Your task to perform on an android device: Open Chrome and go to settings Image 0: 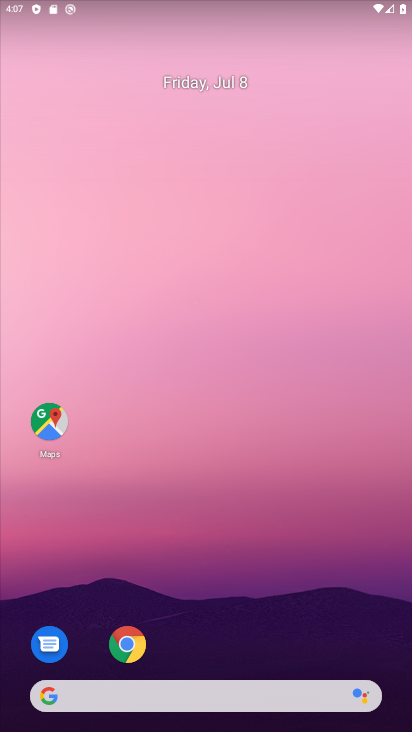
Step 0: click (135, 648)
Your task to perform on an android device: Open Chrome and go to settings Image 1: 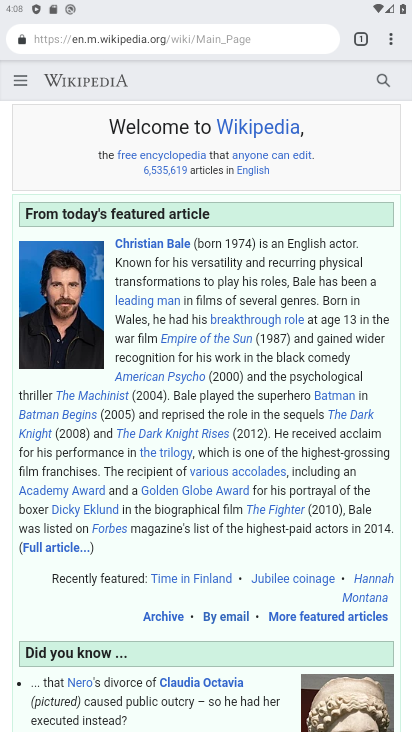
Step 1: click (382, 40)
Your task to perform on an android device: Open Chrome and go to settings Image 2: 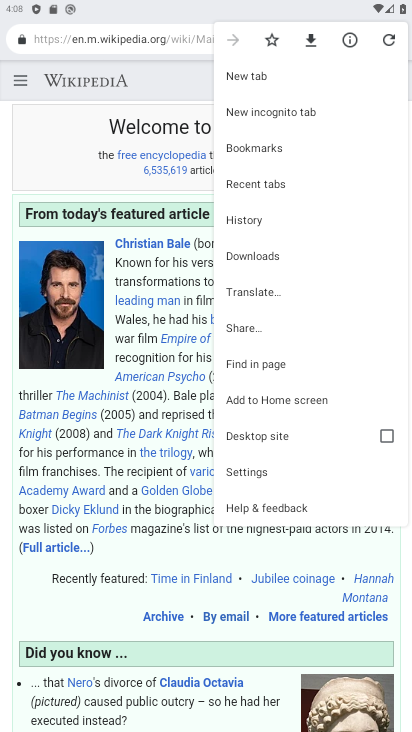
Step 2: click (282, 466)
Your task to perform on an android device: Open Chrome and go to settings Image 3: 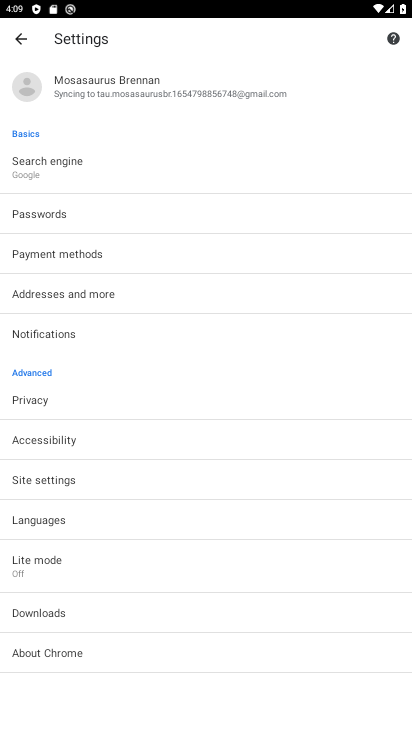
Step 3: task complete